Your task to perform on an android device: turn on translation in the chrome app Image 0: 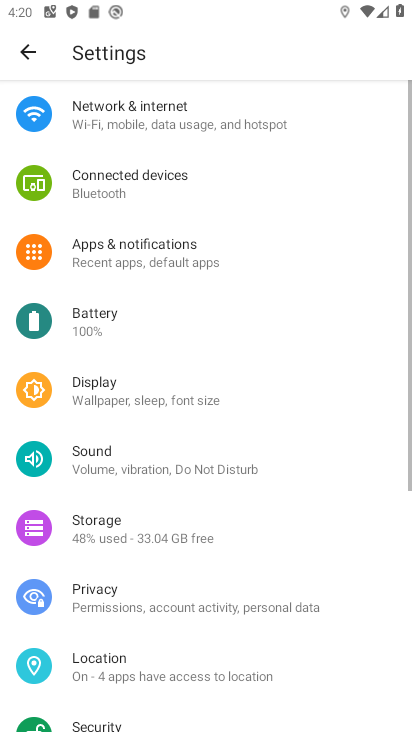
Step 0: press home button
Your task to perform on an android device: turn on translation in the chrome app Image 1: 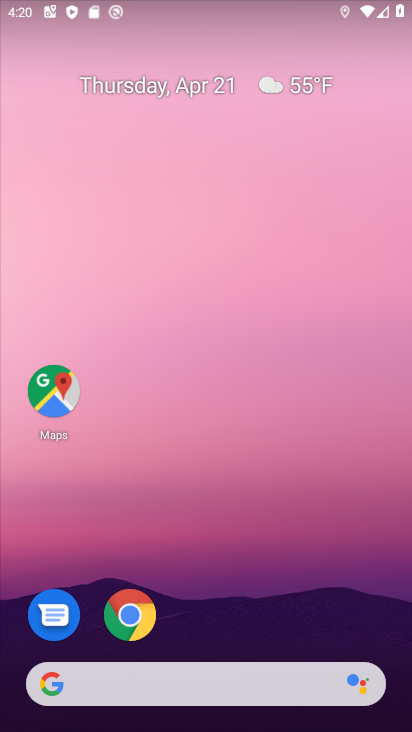
Step 1: click (129, 603)
Your task to perform on an android device: turn on translation in the chrome app Image 2: 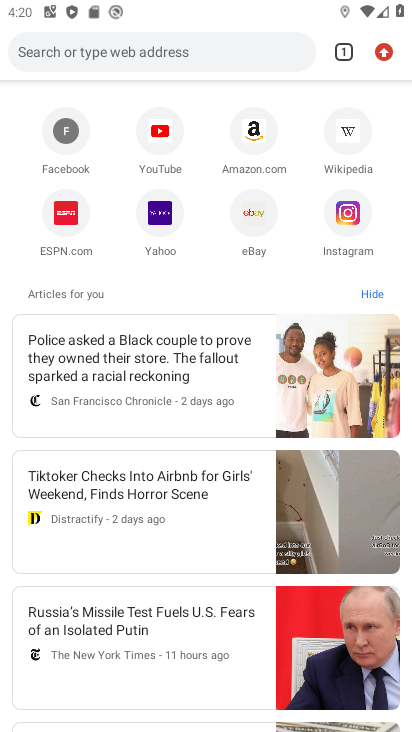
Step 2: drag from (390, 54) to (218, 494)
Your task to perform on an android device: turn on translation in the chrome app Image 3: 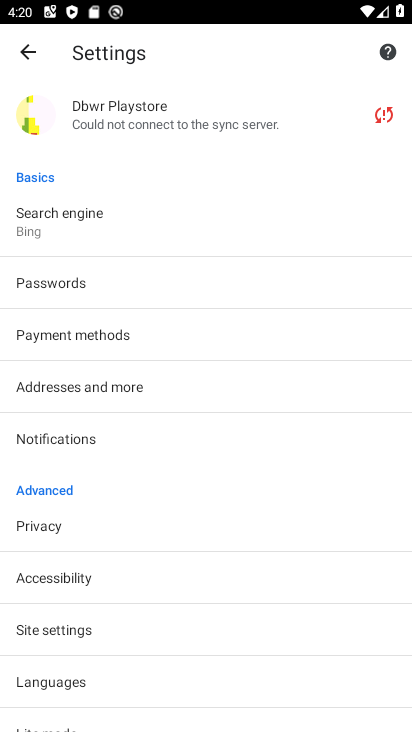
Step 3: click (126, 683)
Your task to perform on an android device: turn on translation in the chrome app Image 4: 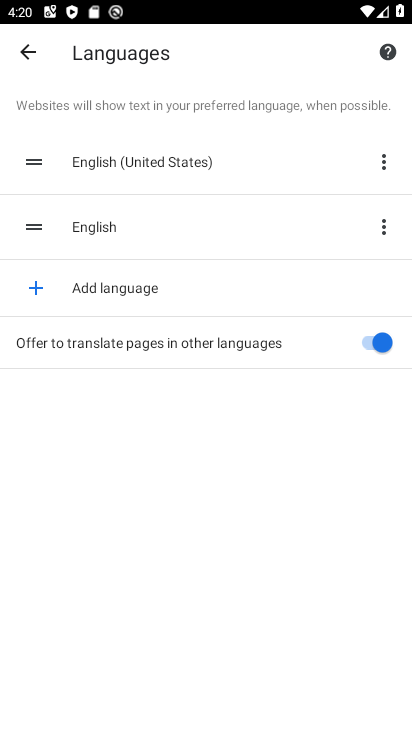
Step 4: task complete